Your task to perform on an android device: turn off improve location accuracy Image 0: 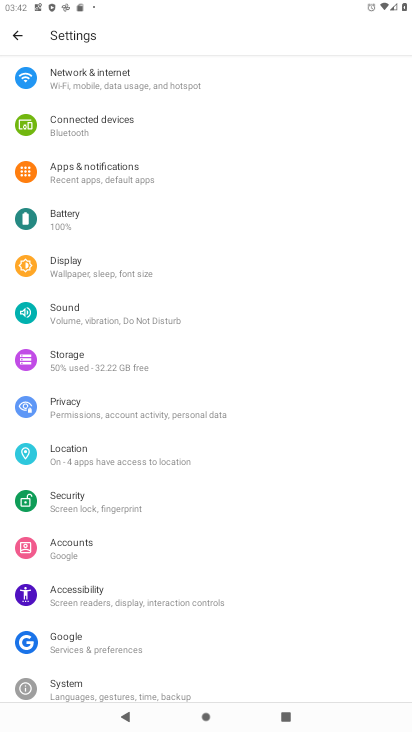
Step 0: click (73, 448)
Your task to perform on an android device: turn off improve location accuracy Image 1: 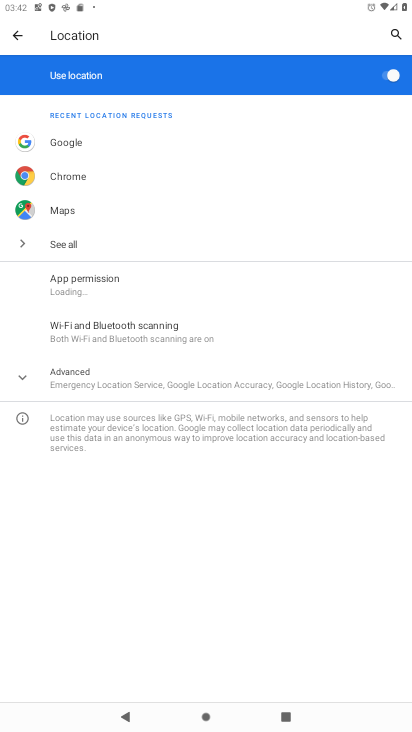
Step 1: click (28, 378)
Your task to perform on an android device: turn off improve location accuracy Image 2: 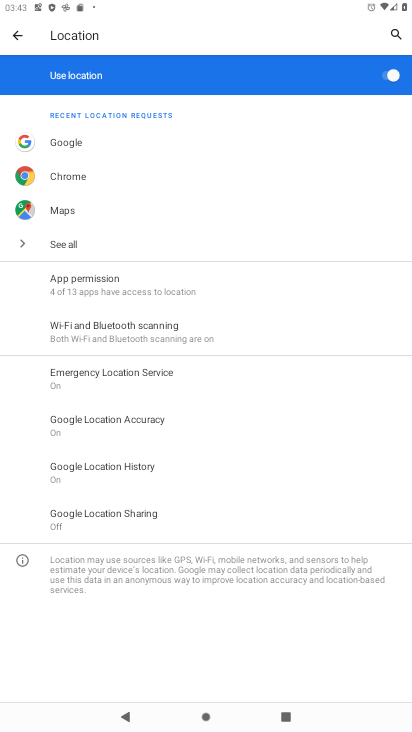
Step 2: click (114, 422)
Your task to perform on an android device: turn off improve location accuracy Image 3: 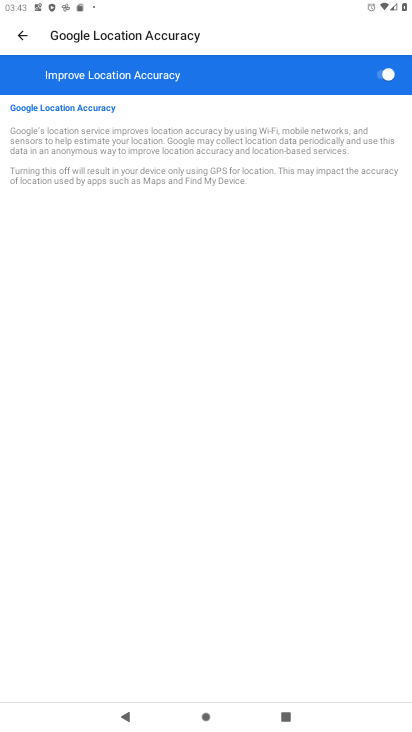
Step 3: click (381, 71)
Your task to perform on an android device: turn off improve location accuracy Image 4: 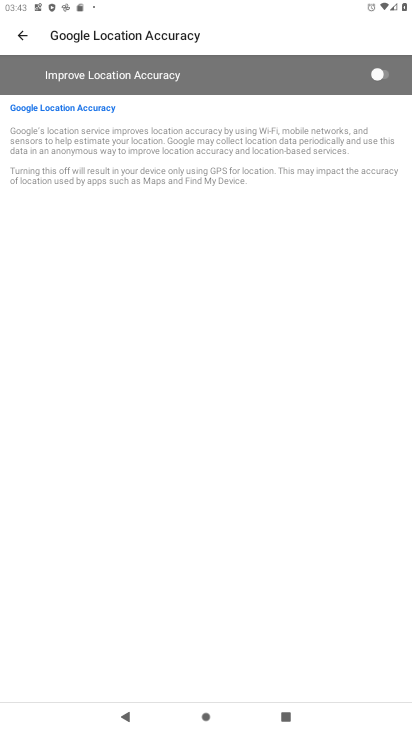
Step 4: task complete